Your task to perform on an android device: find which apps use the phone's location Image 0: 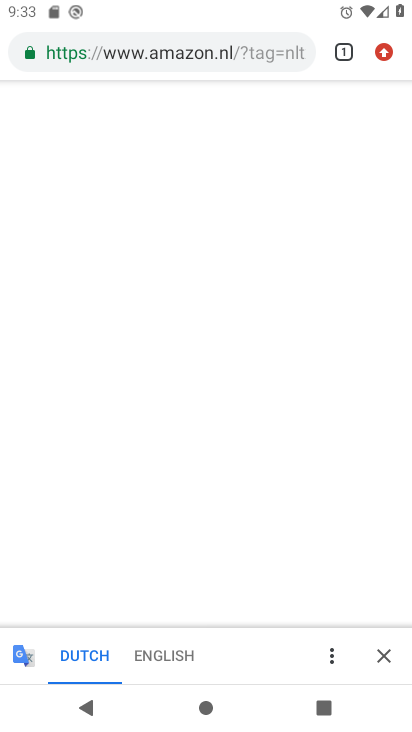
Step 0: press home button
Your task to perform on an android device: find which apps use the phone's location Image 1: 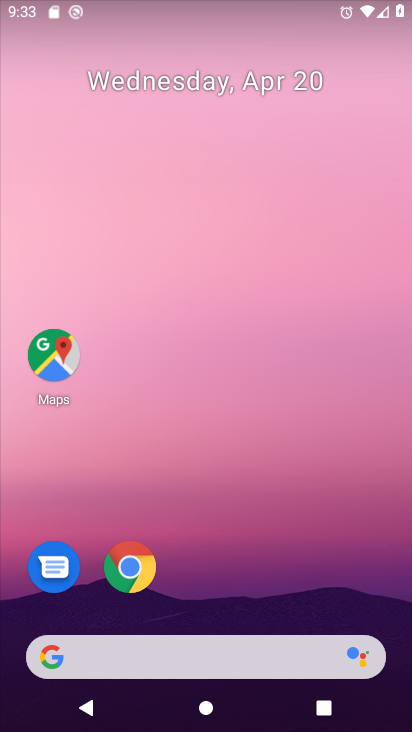
Step 1: drag from (348, 562) to (344, 173)
Your task to perform on an android device: find which apps use the phone's location Image 2: 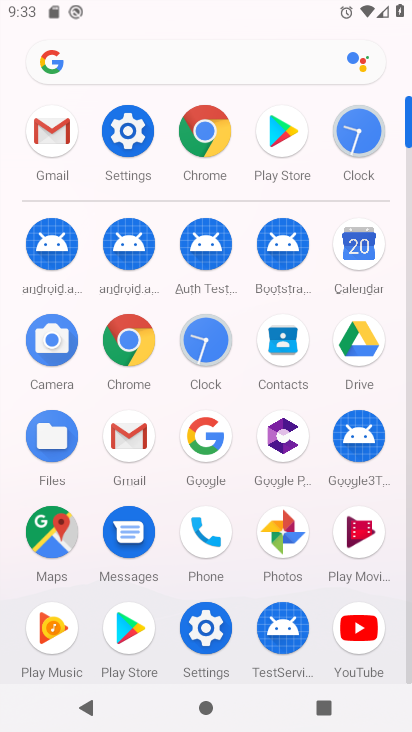
Step 2: click (131, 141)
Your task to perform on an android device: find which apps use the phone's location Image 3: 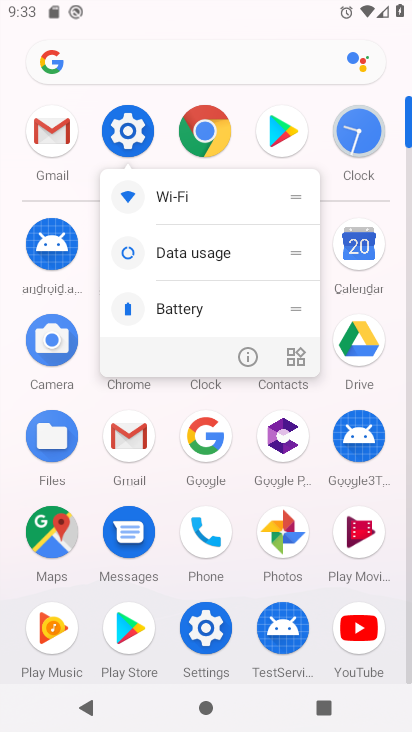
Step 3: click (134, 143)
Your task to perform on an android device: find which apps use the phone's location Image 4: 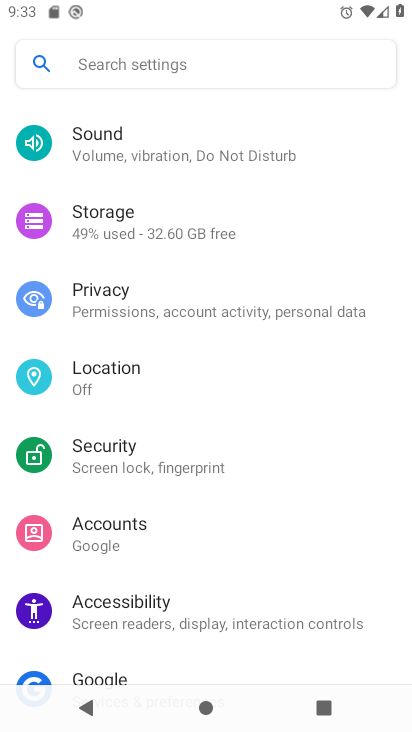
Step 4: drag from (325, 499) to (349, 303)
Your task to perform on an android device: find which apps use the phone's location Image 5: 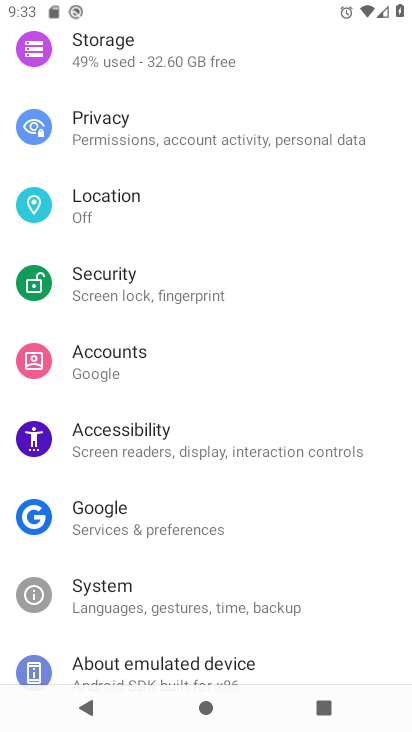
Step 5: drag from (348, 587) to (375, 341)
Your task to perform on an android device: find which apps use the phone's location Image 6: 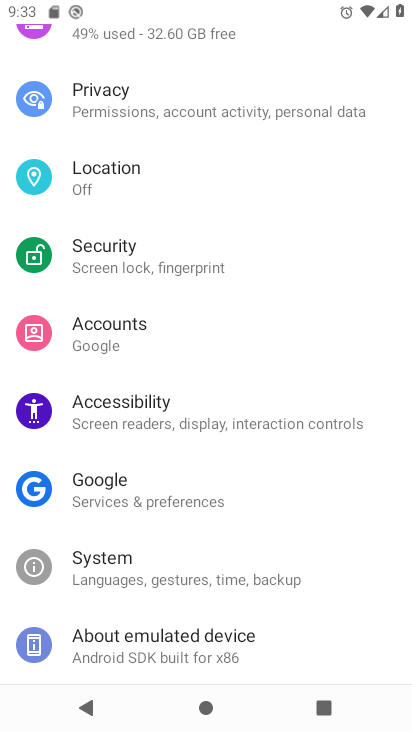
Step 6: click (105, 185)
Your task to perform on an android device: find which apps use the phone's location Image 7: 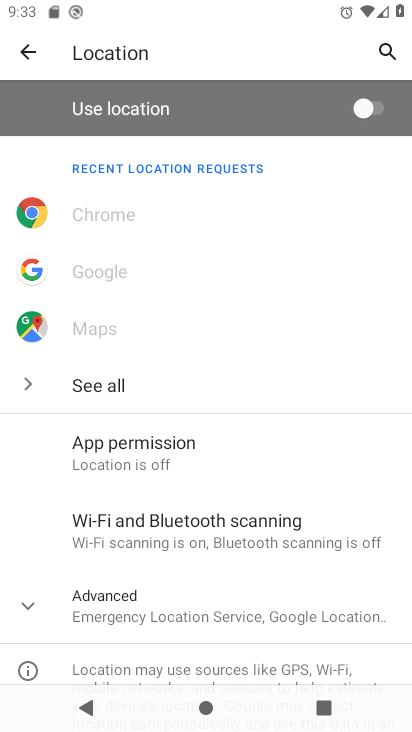
Step 7: click (176, 456)
Your task to perform on an android device: find which apps use the phone's location Image 8: 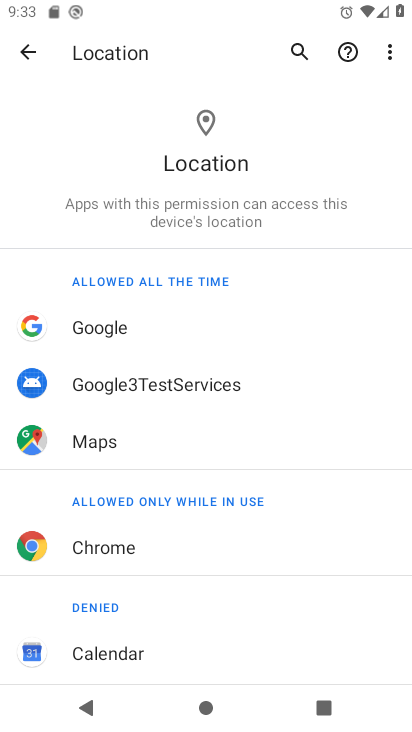
Step 8: drag from (326, 599) to (329, 430)
Your task to perform on an android device: find which apps use the phone's location Image 9: 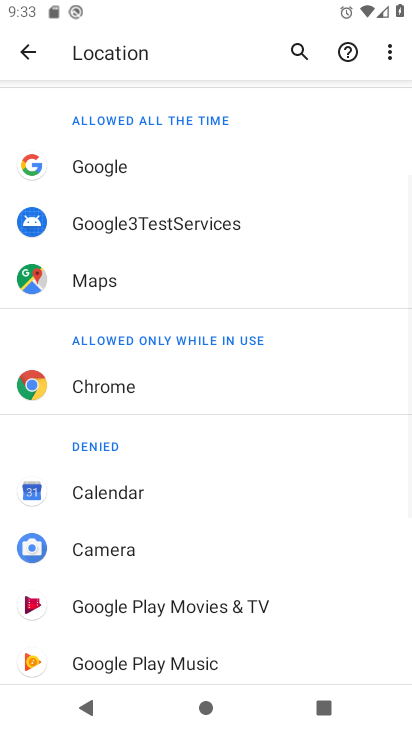
Step 9: drag from (341, 604) to (342, 423)
Your task to perform on an android device: find which apps use the phone's location Image 10: 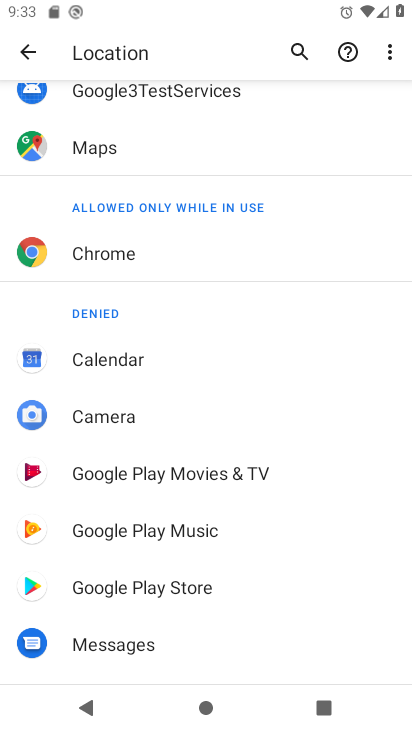
Step 10: drag from (358, 581) to (335, 403)
Your task to perform on an android device: find which apps use the phone's location Image 11: 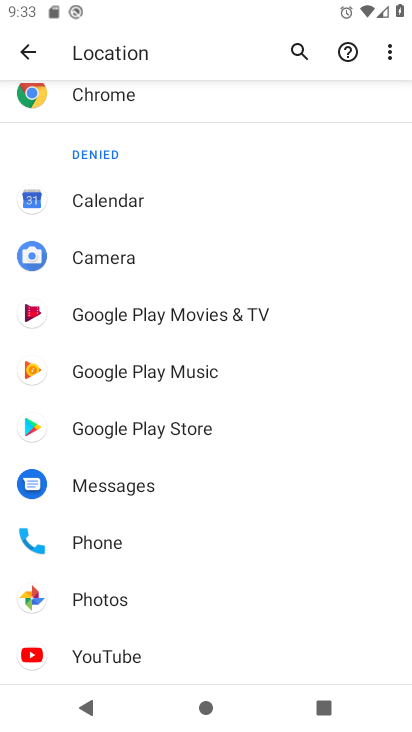
Step 11: drag from (325, 574) to (127, 599)
Your task to perform on an android device: find which apps use the phone's location Image 12: 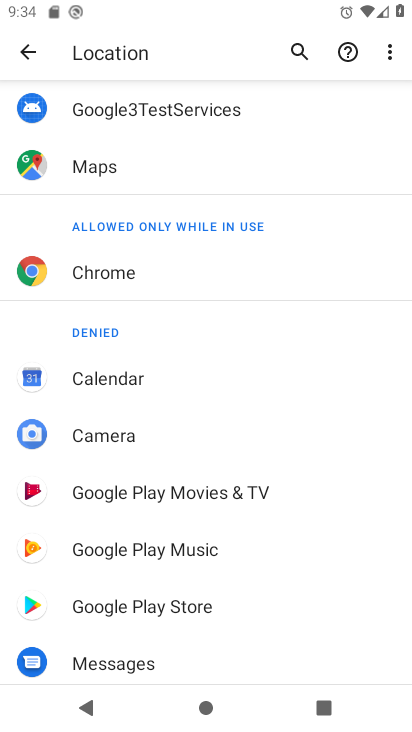
Step 12: drag from (319, 593) to (357, 372)
Your task to perform on an android device: find which apps use the phone's location Image 13: 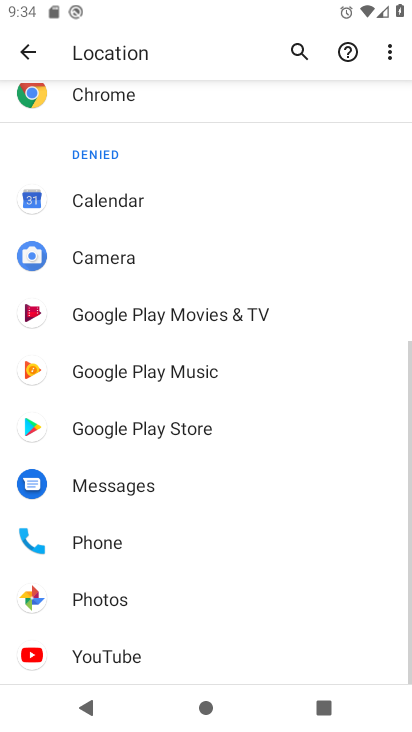
Step 13: click (91, 606)
Your task to perform on an android device: find which apps use the phone's location Image 14: 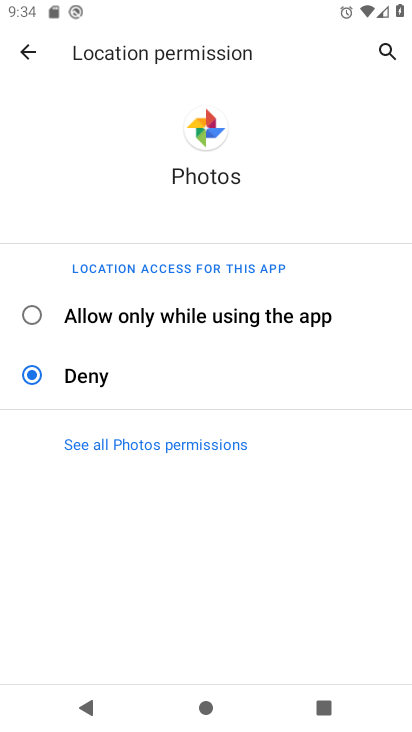
Step 14: click (154, 314)
Your task to perform on an android device: find which apps use the phone's location Image 15: 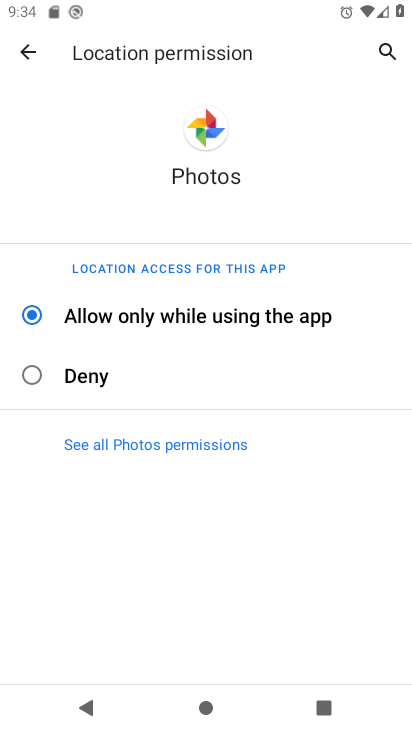
Step 15: task complete